Your task to perform on an android device: Open Google Chrome and open the bookmarks view Image 0: 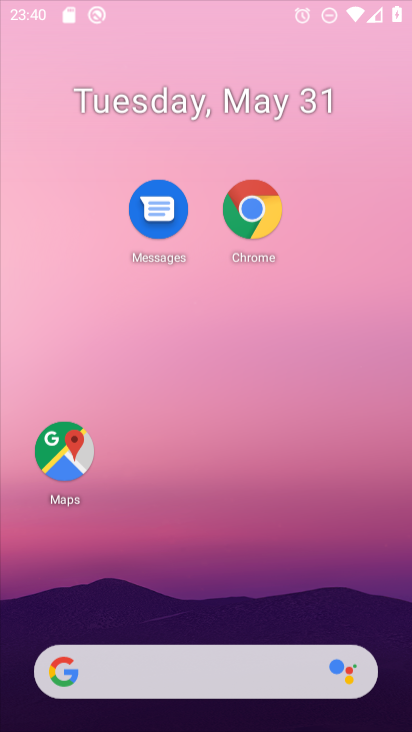
Step 0: press home button
Your task to perform on an android device: Open Google Chrome and open the bookmarks view Image 1: 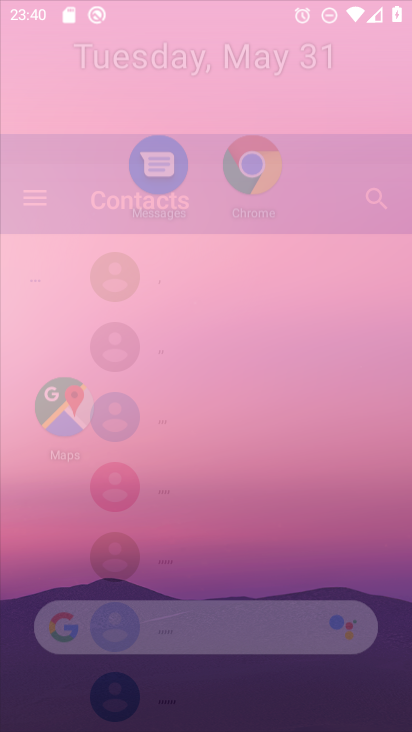
Step 1: drag from (212, 625) to (266, 90)
Your task to perform on an android device: Open Google Chrome and open the bookmarks view Image 2: 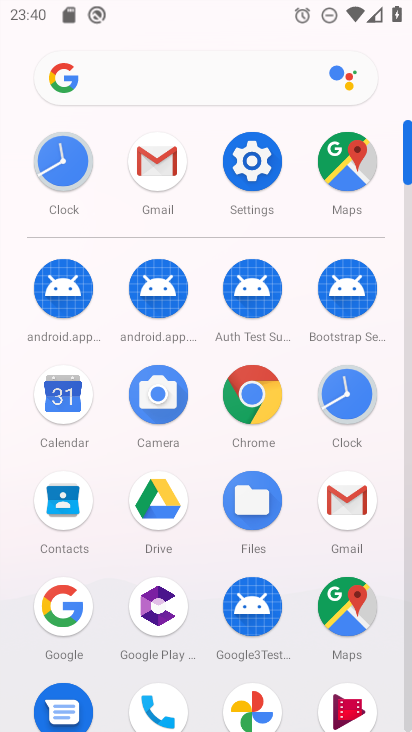
Step 2: click (251, 385)
Your task to perform on an android device: Open Google Chrome and open the bookmarks view Image 3: 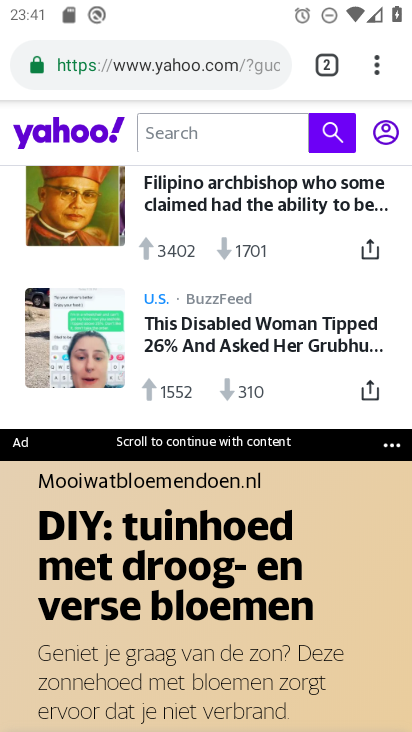
Step 3: click (369, 62)
Your task to perform on an android device: Open Google Chrome and open the bookmarks view Image 4: 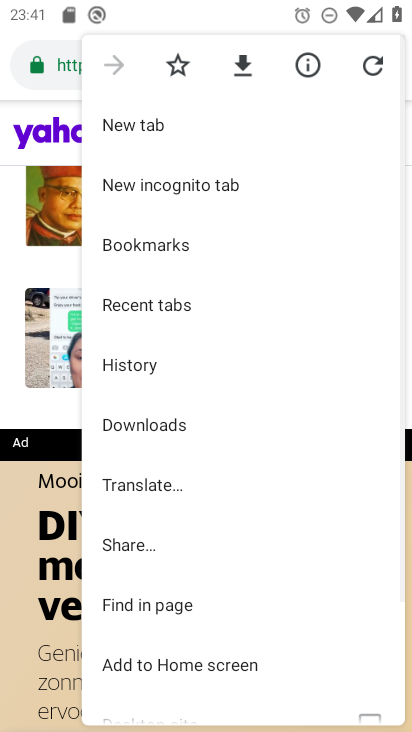
Step 4: click (203, 241)
Your task to perform on an android device: Open Google Chrome and open the bookmarks view Image 5: 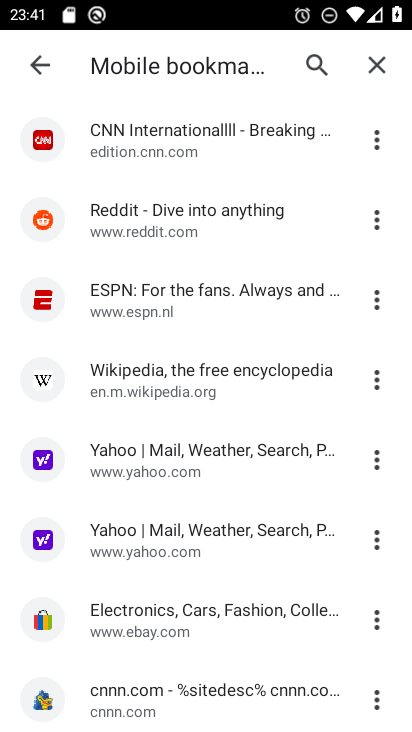
Step 5: click (222, 380)
Your task to perform on an android device: Open Google Chrome and open the bookmarks view Image 6: 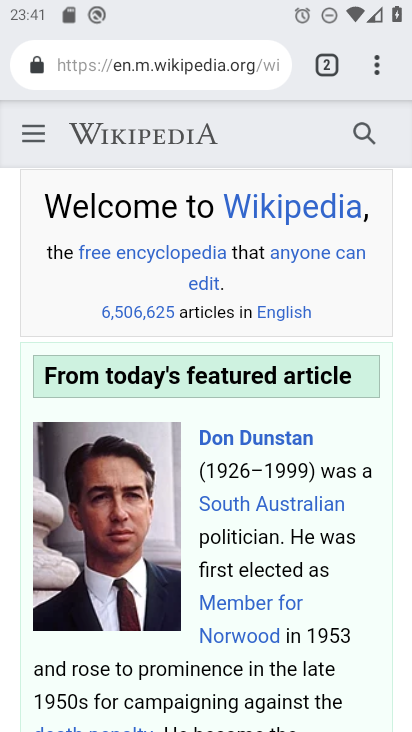
Step 6: task complete